Your task to perform on an android device: Go to Maps Image 0: 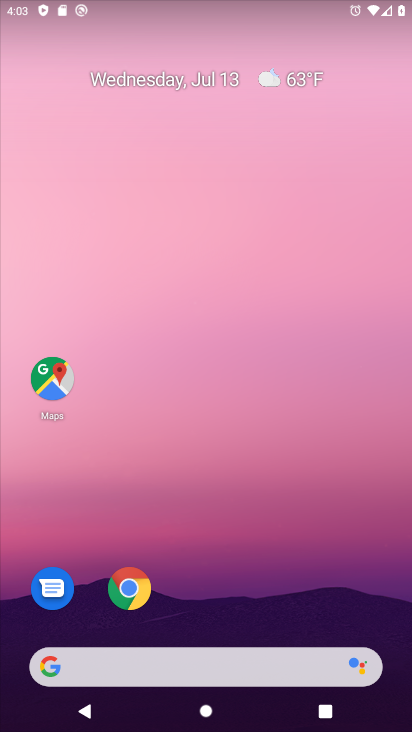
Step 0: click (53, 380)
Your task to perform on an android device: Go to Maps Image 1: 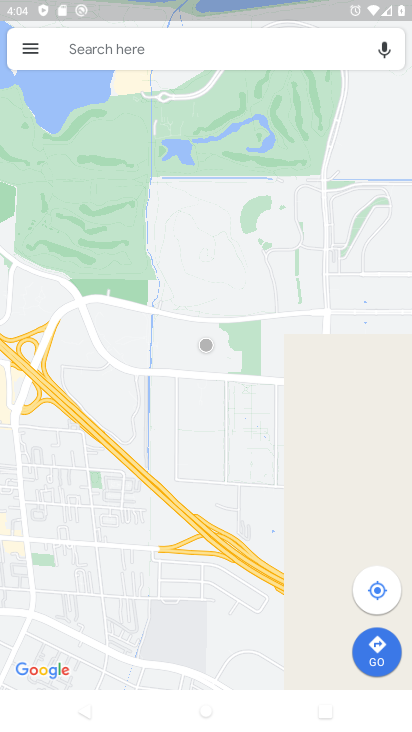
Step 1: task complete